Your task to perform on an android device: Show me the alarms in the clock app Image 0: 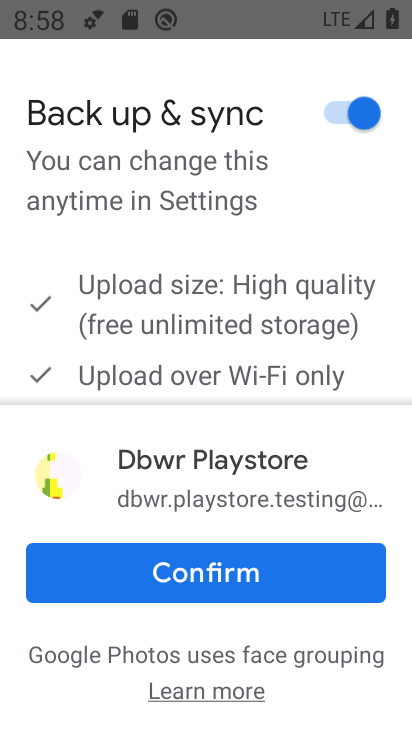
Step 0: press home button
Your task to perform on an android device: Show me the alarms in the clock app Image 1: 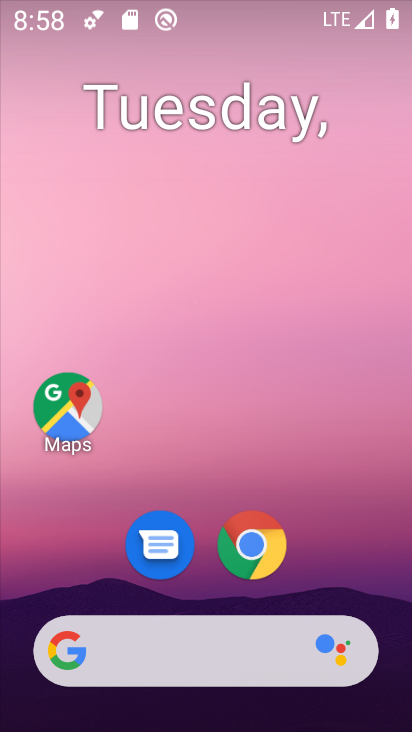
Step 1: drag from (305, 549) to (304, 19)
Your task to perform on an android device: Show me the alarms in the clock app Image 2: 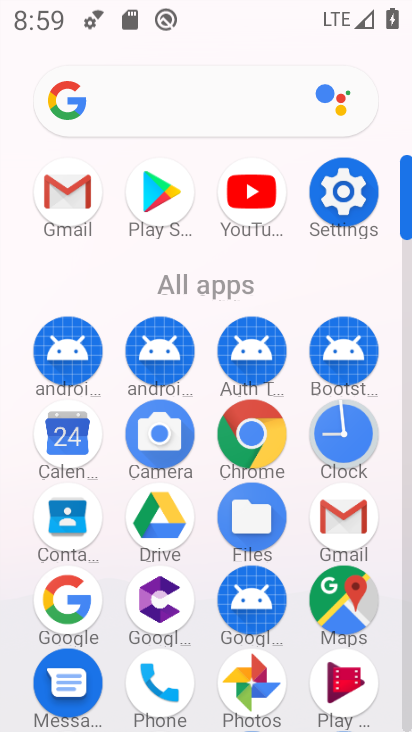
Step 2: click (357, 427)
Your task to perform on an android device: Show me the alarms in the clock app Image 3: 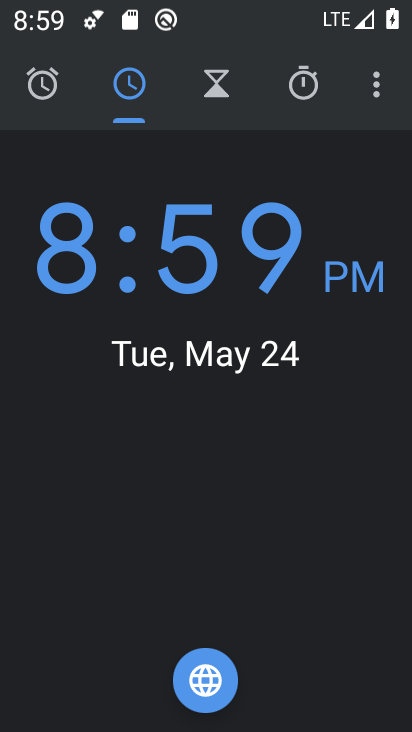
Step 3: click (58, 103)
Your task to perform on an android device: Show me the alarms in the clock app Image 4: 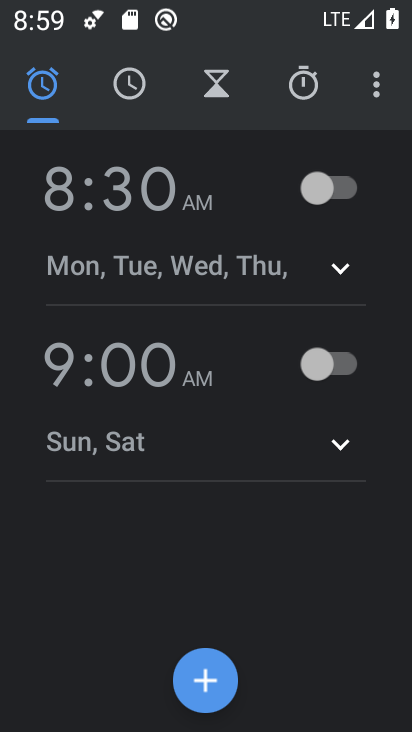
Step 4: task complete